Your task to perform on an android device: create a new album in the google photos Image 0: 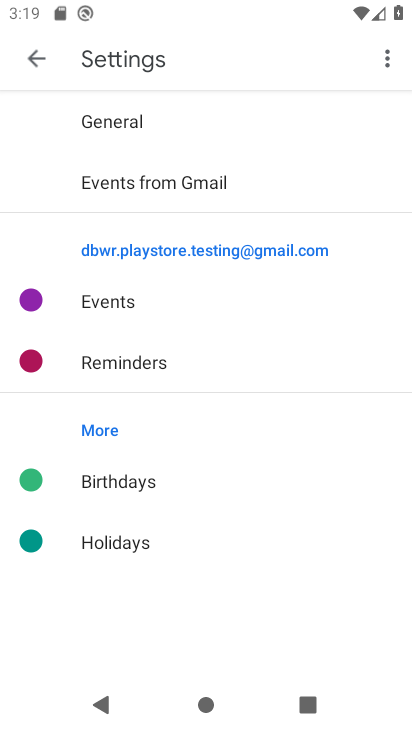
Step 0: press home button
Your task to perform on an android device: create a new album in the google photos Image 1: 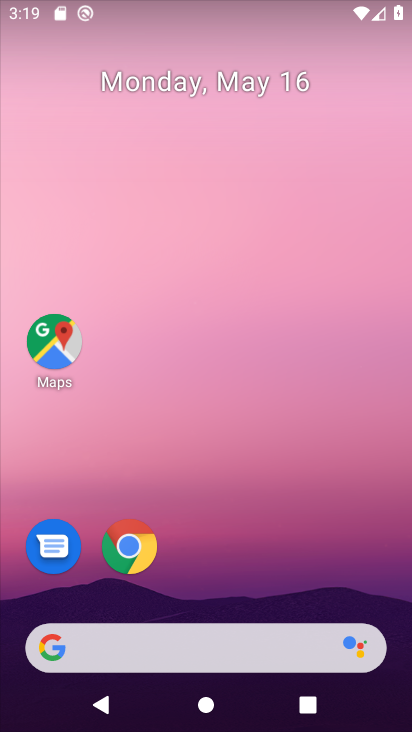
Step 1: drag from (340, 553) to (364, 75)
Your task to perform on an android device: create a new album in the google photos Image 2: 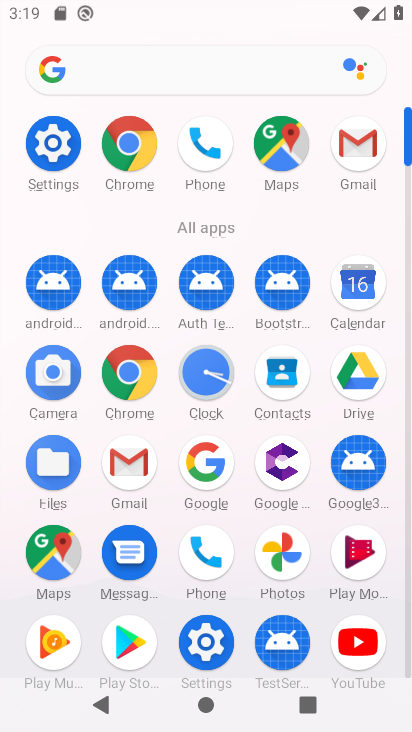
Step 2: click (286, 560)
Your task to perform on an android device: create a new album in the google photos Image 3: 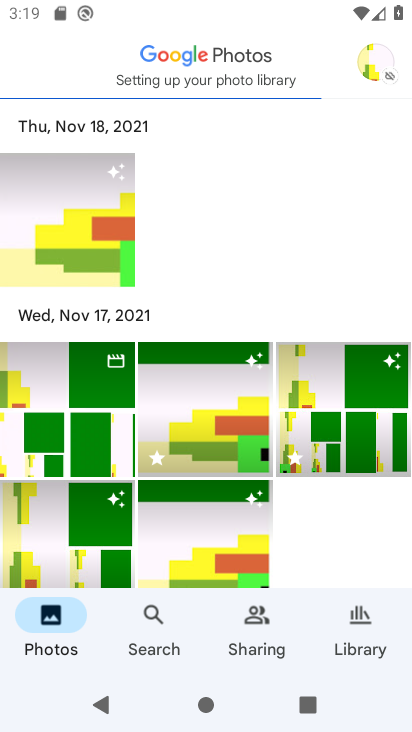
Step 3: click (370, 622)
Your task to perform on an android device: create a new album in the google photos Image 4: 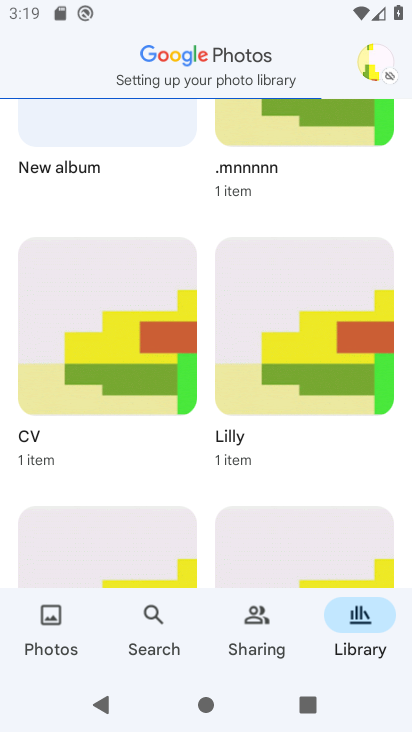
Step 4: drag from (203, 143) to (190, 414)
Your task to perform on an android device: create a new album in the google photos Image 5: 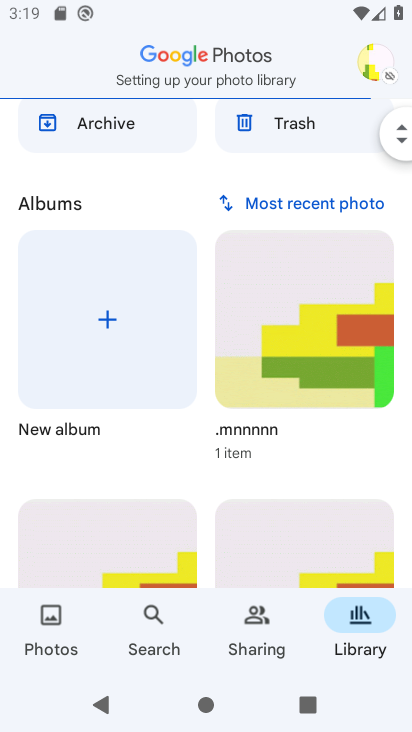
Step 5: drag from (197, 164) to (188, 379)
Your task to perform on an android device: create a new album in the google photos Image 6: 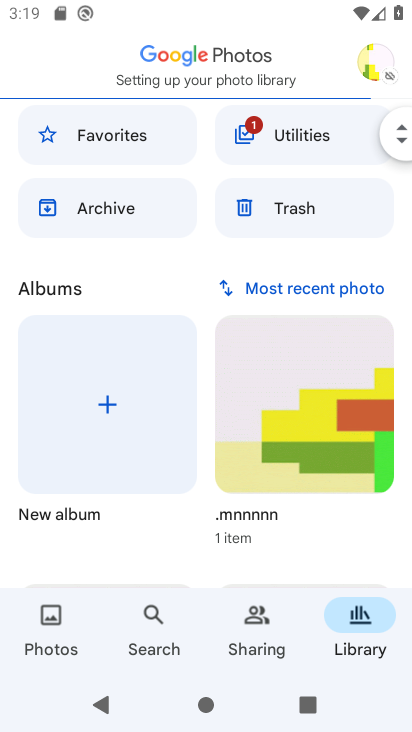
Step 6: click (104, 419)
Your task to perform on an android device: create a new album in the google photos Image 7: 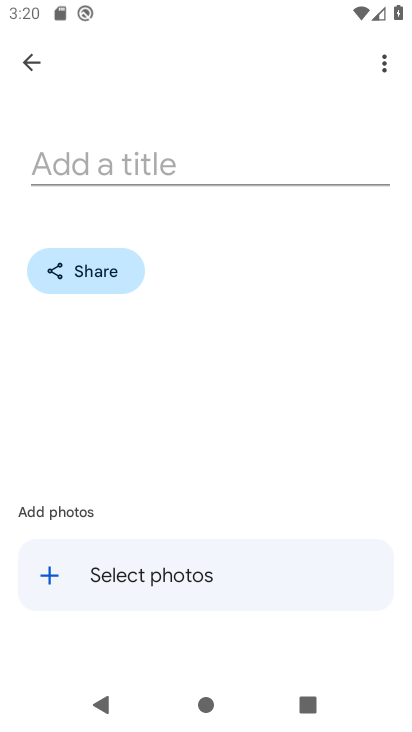
Step 7: click (140, 157)
Your task to perform on an android device: create a new album in the google photos Image 8: 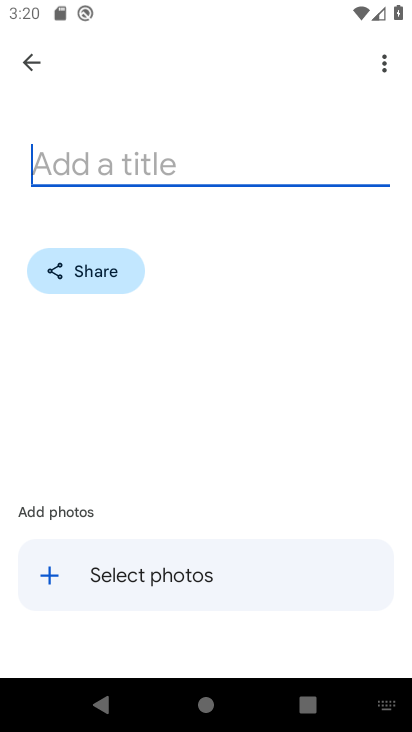
Step 8: type "fav"
Your task to perform on an android device: create a new album in the google photos Image 9: 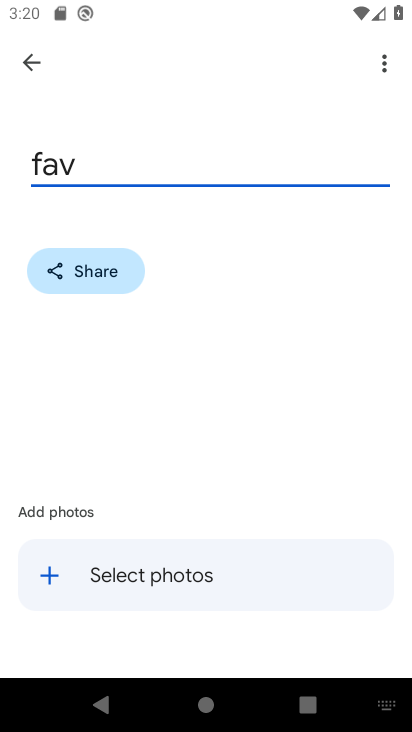
Step 9: click (189, 586)
Your task to perform on an android device: create a new album in the google photos Image 10: 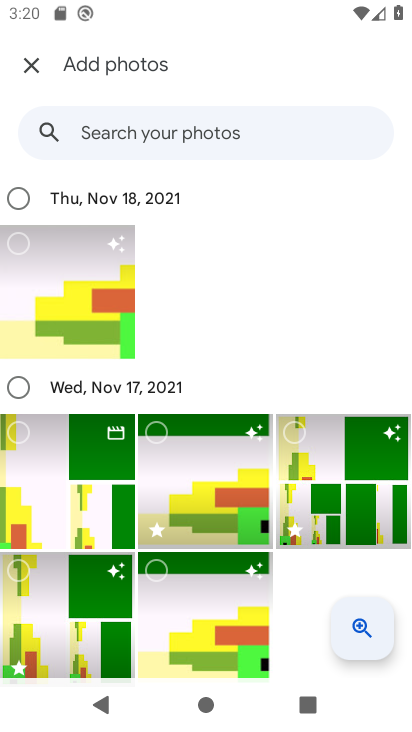
Step 10: click (74, 321)
Your task to perform on an android device: create a new album in the google photos Image 11: 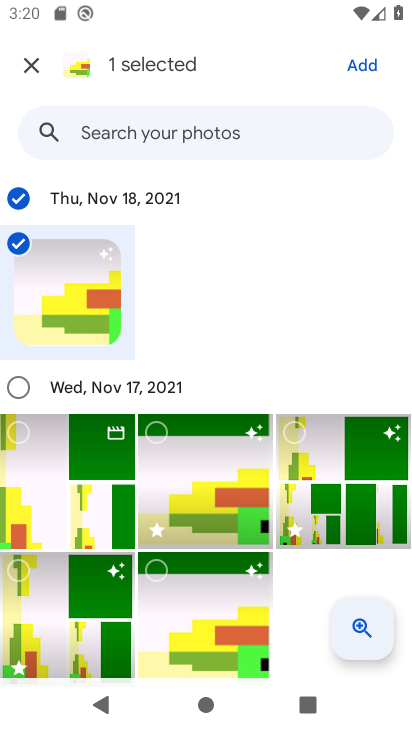
Step 11: click (360, 66)
Your task to perform on an android device: create a new album in the google photos Image 12: 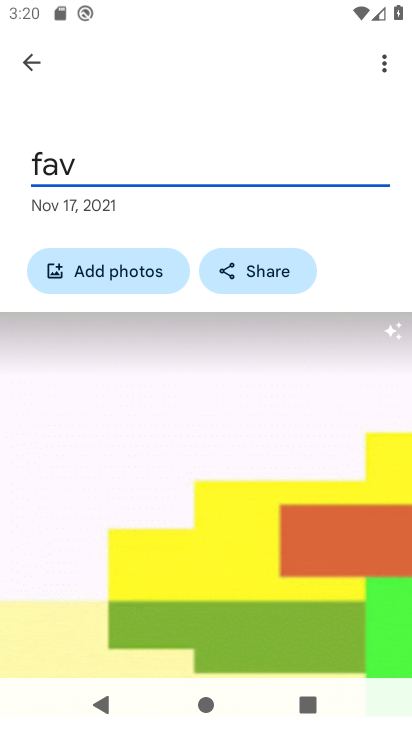
Step 12: task complete